Your task to perform on an android device: turn on sleep mode Image 0: 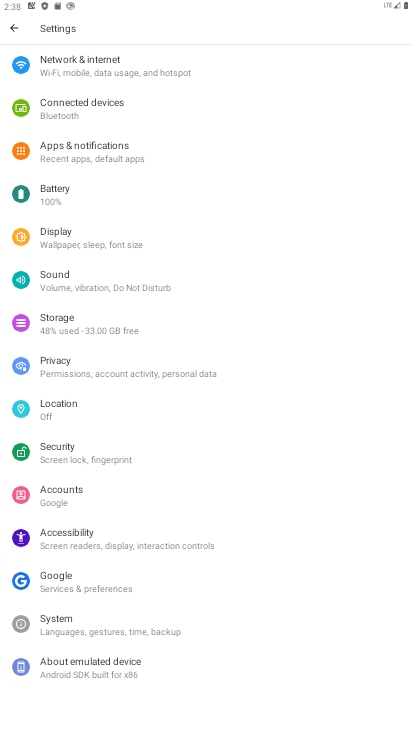
Step 0: click (72, 230)
Your task to perform on an android device: turn on sleep mode Image 1: 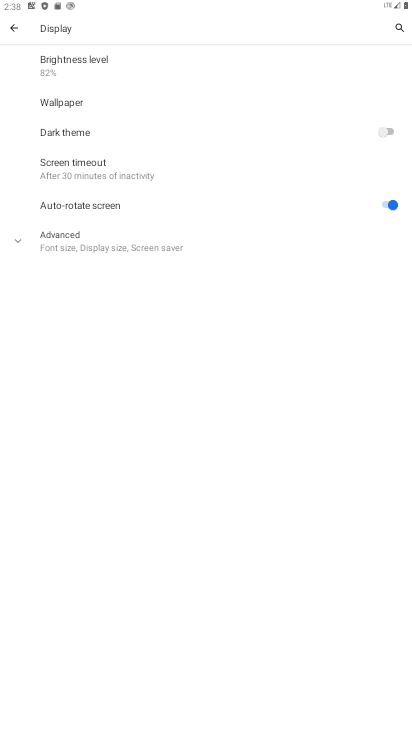
Step 1: click (112, 172)
Your task to perform on an android device: turn on sleep mode Image 2: 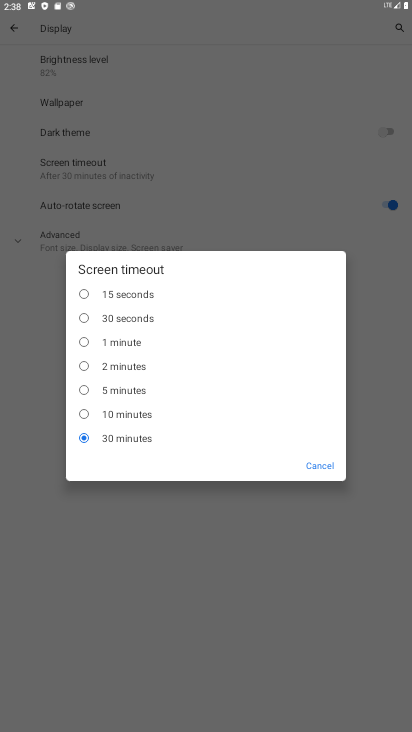
Step 2: task complete